Your task to perform on an android device: Go to network settings Image 0: 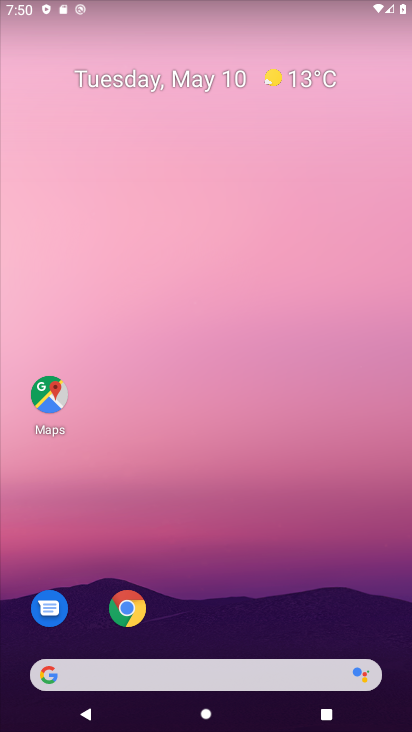
Step 0: press home button
Your task to perform on an android device: Go to network settings Image 1: 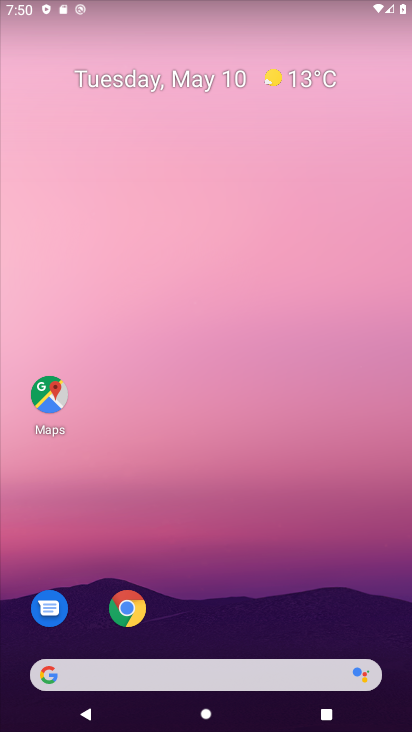
Step 1: drag from (133, 678) to (185, 127)
Your task to perform on an android device: Go to network settings Image 2: 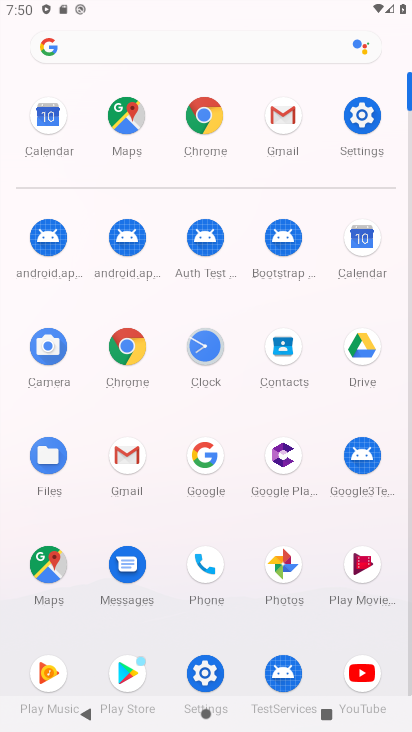
Step 2: click (358, 119)
Your task to perform on an android device: Go to network settings Image 3: 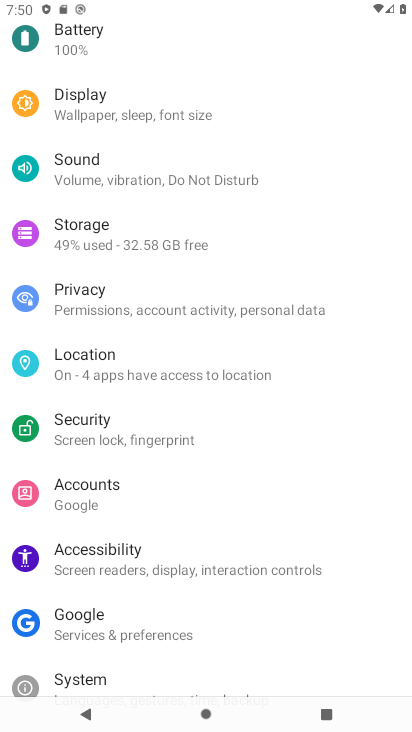
Step 3: drag from (228, 72) to (188, 484)
Your task to perform on an android device: Go to network settings Image 4: 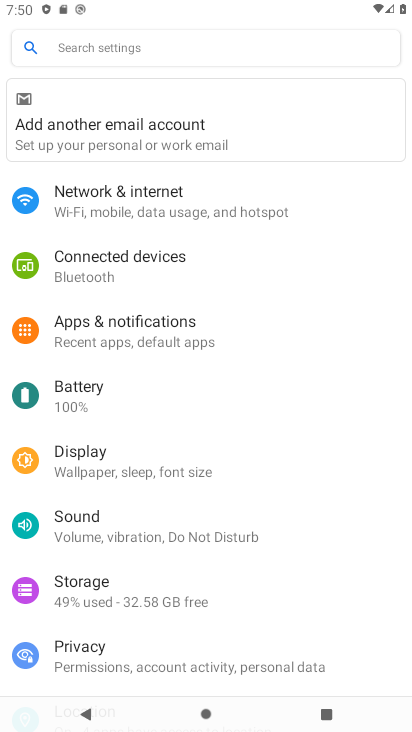
Step 4: click (114, 203)
Your task to perform on an android device: Go to network settings Image 5: 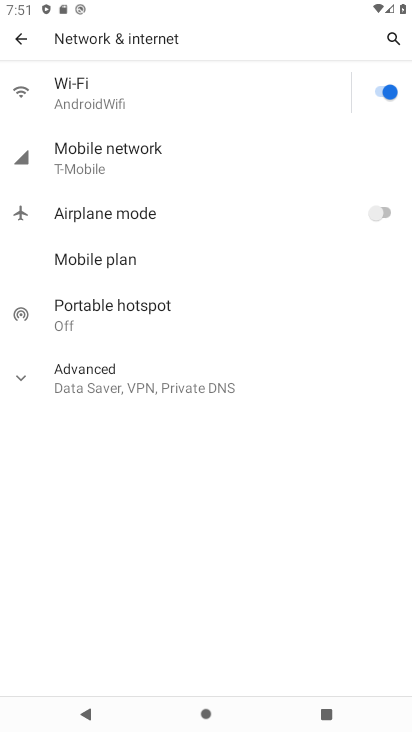
Step 5: task complete